Your task to perform on an android device: Open eBay Image 0: 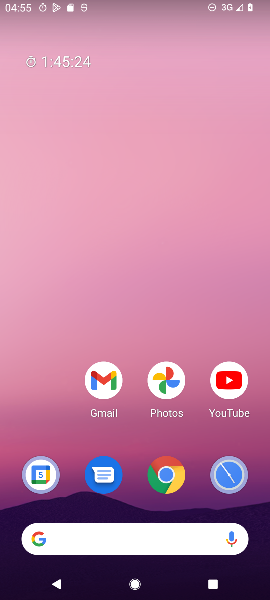
Step 0: drag from (39, 418) to (38, 214)
Your task to perform on an android device: Open eBay Image 1: 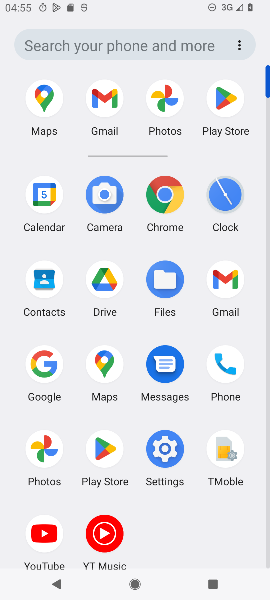
Step 1: click (163, 194)
Your task to perform on an android device: Open eBay Image 2: 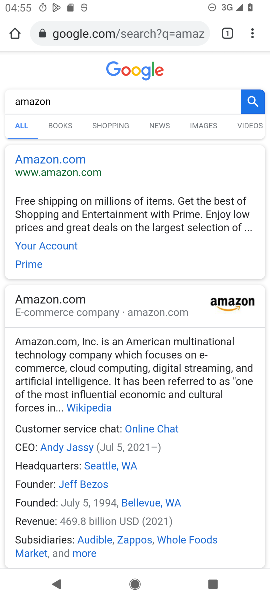
Step 2: click (169, 34)
Your task to perform on an android device: Open eBay Image 3: 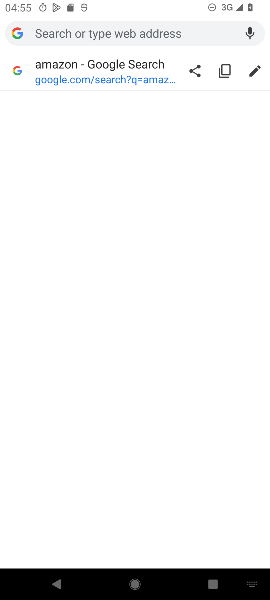
Step 3: type "ebay"
Your task to perform on an android device: Open eBay Image 4: 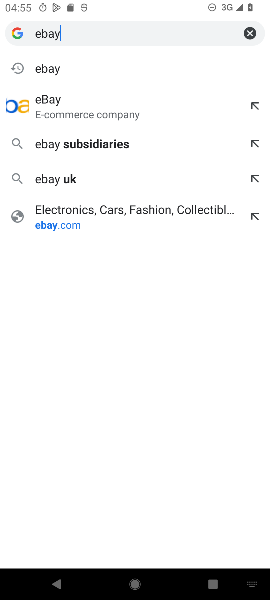
Step 4: click (111, 103)
Your task to perform on an android device: Open eBay Image 5: 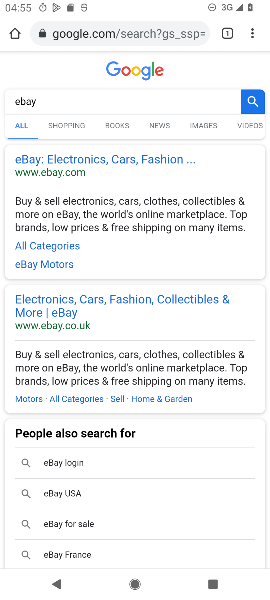
Step 5: task complete